Your task to perform on an android device: open chrome and create a bookmark for the current page Image 0: 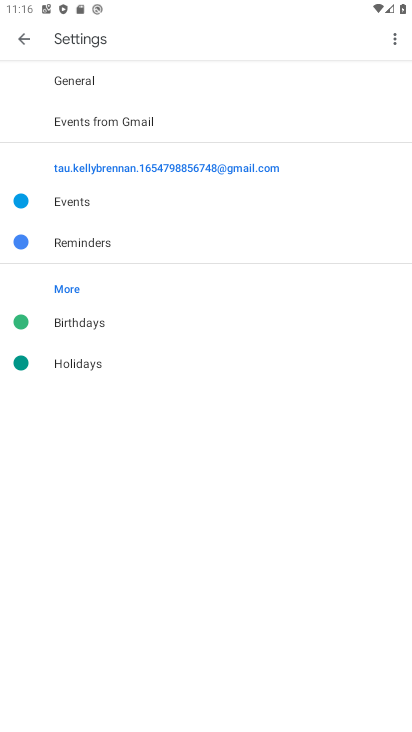
Step 0: press home button
Your task to perform on an android device: open chrome and create a bookmark for the current page Image 1: 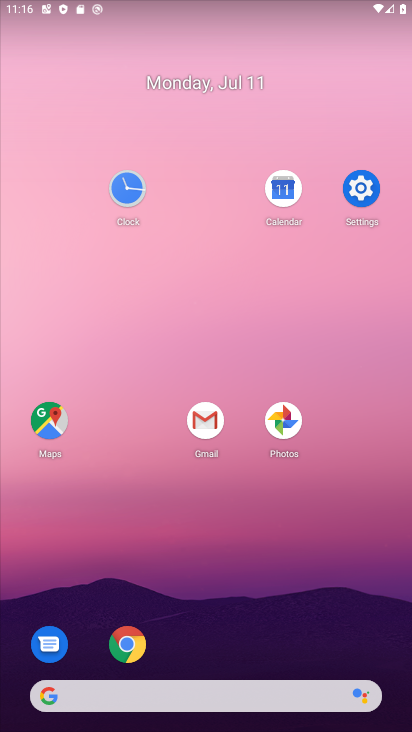
Step 1: click (127, 641)
Your task to perform on an android device: open chrome and create a bookmark for the current page Image 2: 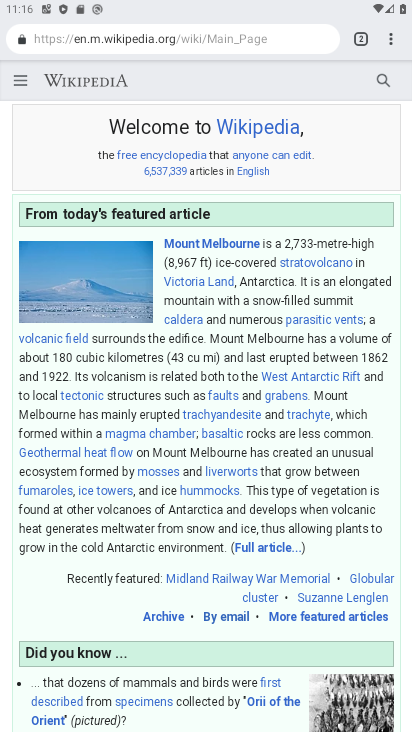
Step 2: click (387, 39)
Your task to perform on an android device: open chrome and create a bookmark for the current page Image 3: 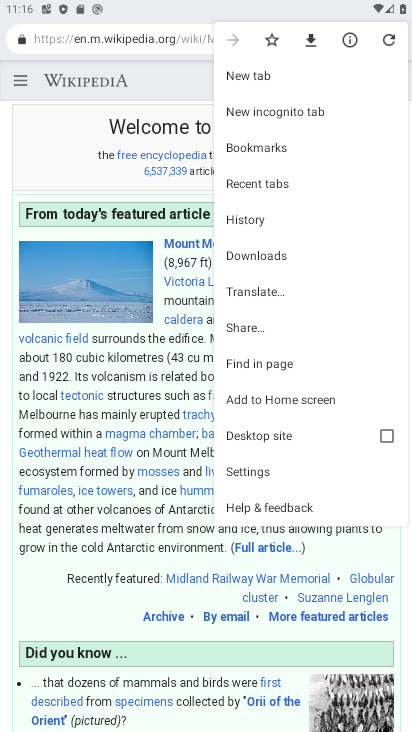
Step 3: click (271, 49)
Your task to perform on an android device: open chrome and create a bookmark for the current page Image 4: 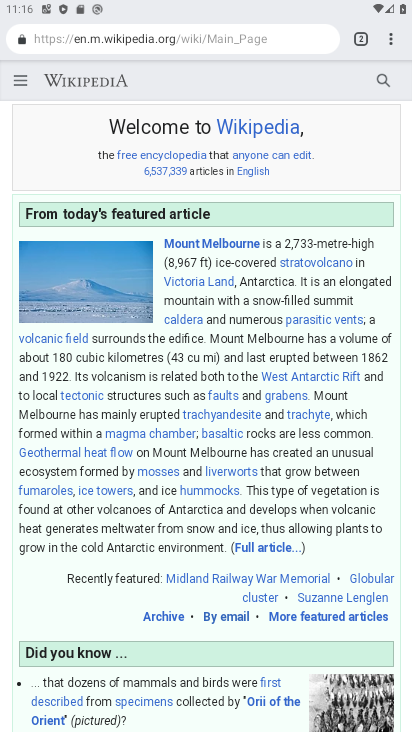
Step 4: task complete